Your task to perform on an android device: Open Reddit.com Image 0: 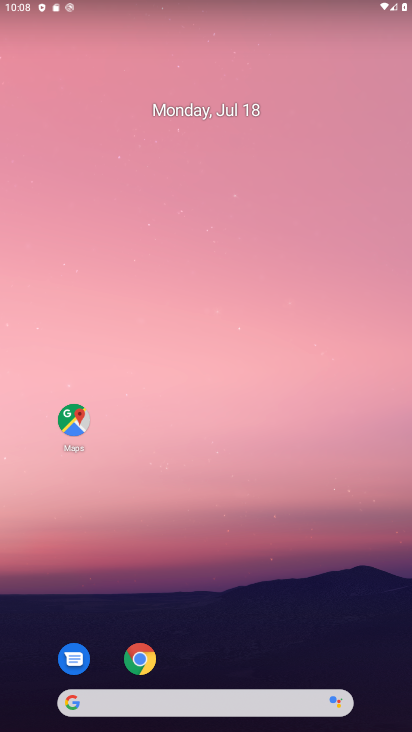
Step 0: click (222, 694)
Your task to perform on an android device: Open Reddit.com Image 1: 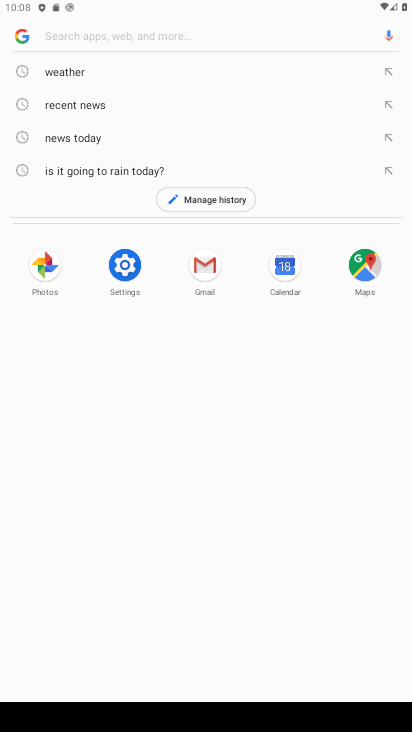
Step 1: press enter
Your task to perform on an android device: Open Reddit.com Image 2: 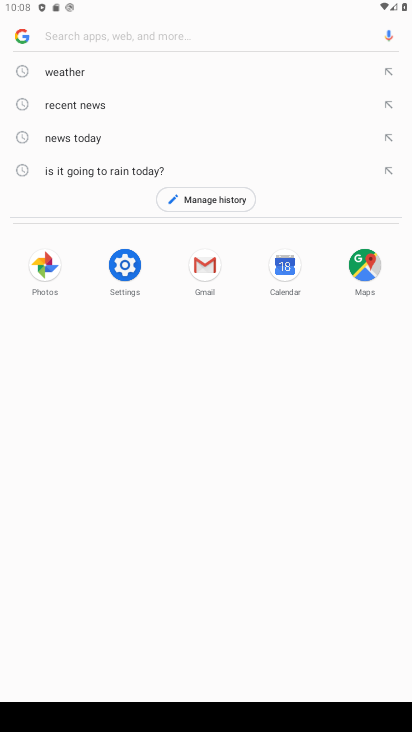
Step 2: type " Reddit.com"
Your task to perform on an android device: Open Reddit.com Image 3: 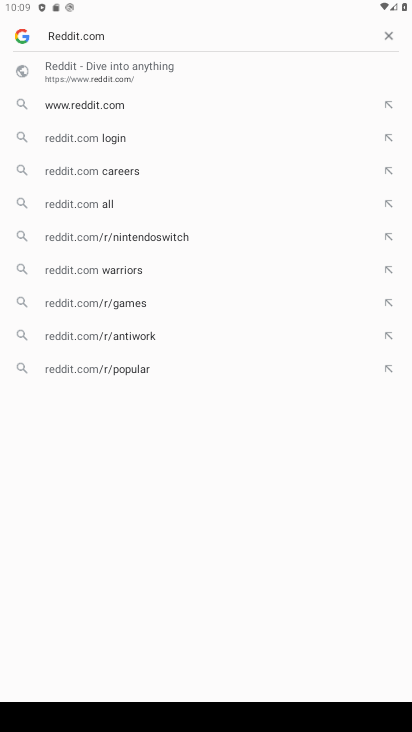
Step 3: press enter
Your task to perform on an android device: Open Reddit.com Image 4: 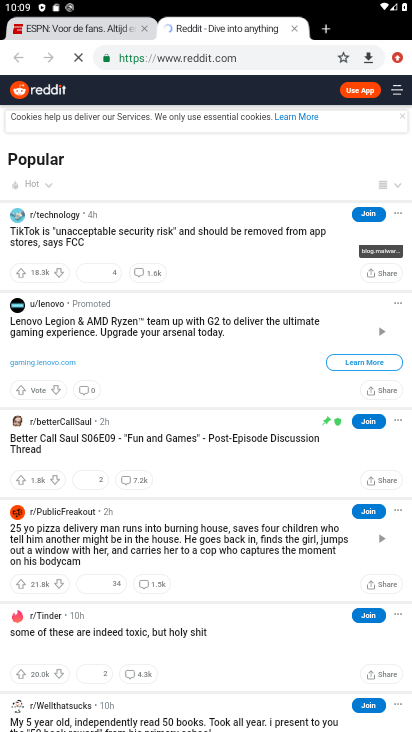
Step 4: task complete